Your task to perform on an android device: Open the stopwatch Image 0: 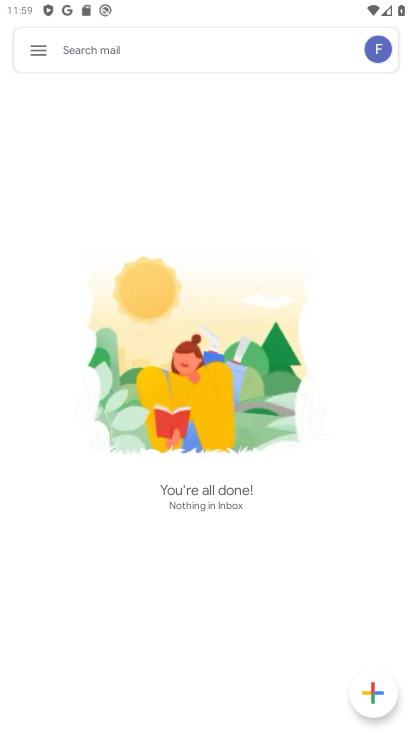
Step 0: press home button
Your task to perform on an android device: Open the stopwatch Image 1: 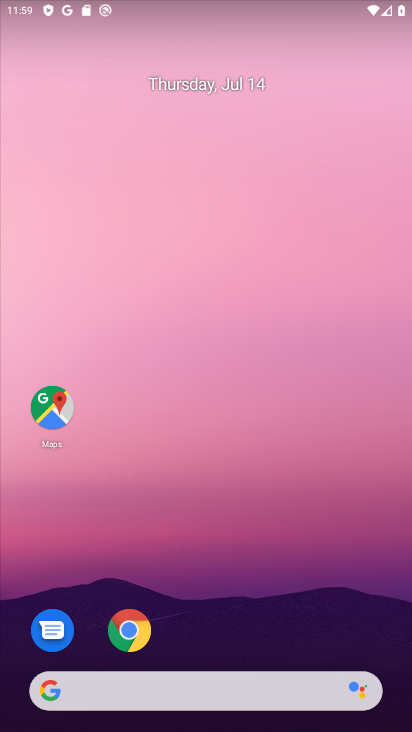
Step 1: drag from (192, 656) to (203, 15)
Your task to perform on an android device: Open the stopwatch Image 2: 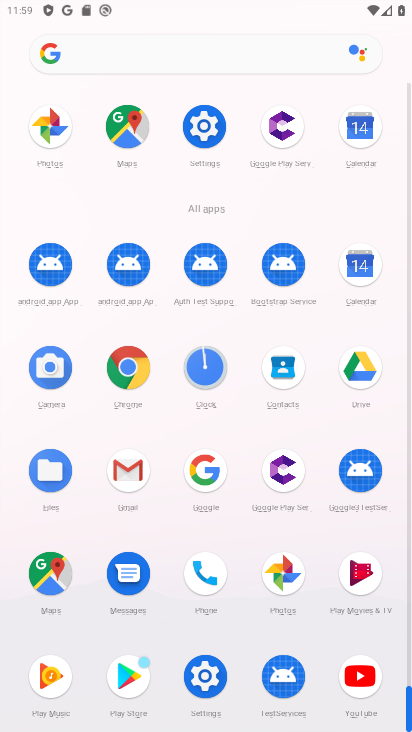
Step 2: click (196, 370)
Your task to perform on an android device: Open the stopwatch Image 3: 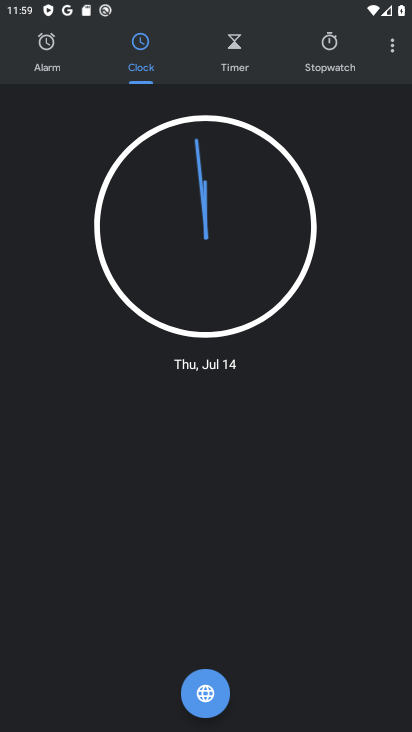
Step 3: click (341, 43)
Your task to perform on an android device: Open the stopwatch Image 4: 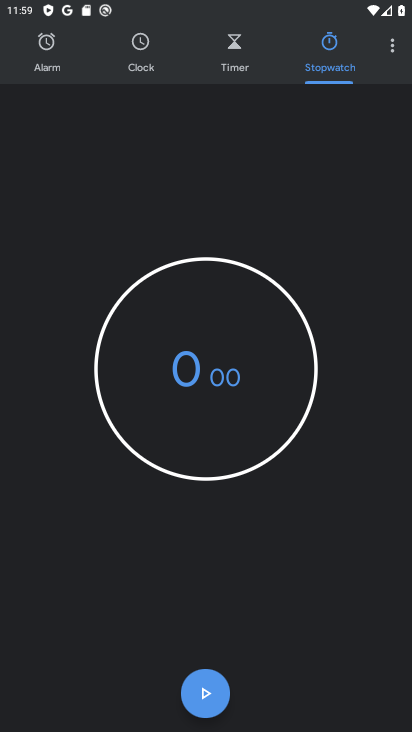
Step 4: click (199, 696)
Your task to perform on an android device: Open the stopwatch Image 5: 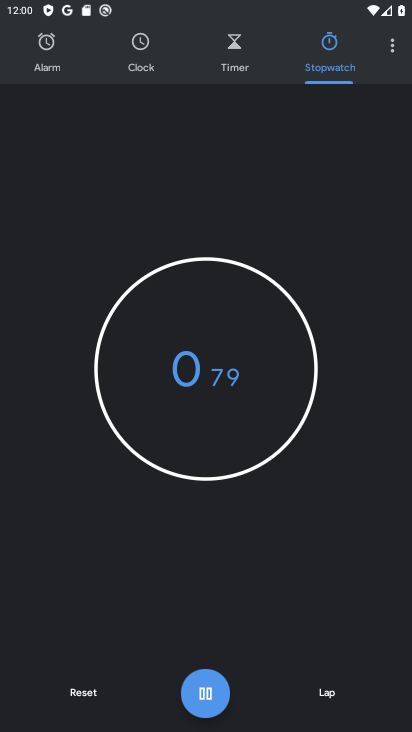
Step 5: task complete